Your task to perform on an android device: Open Chrome and go to settings Image 0: 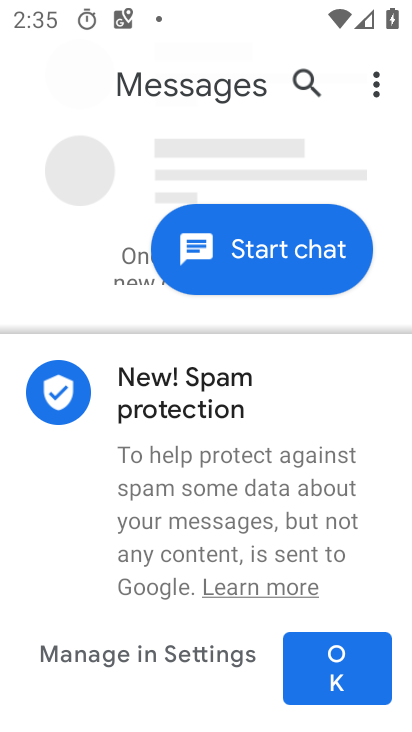
Step 0: press home button
Your task to perform on an android device: Open Chrome and go to settings Image 1: 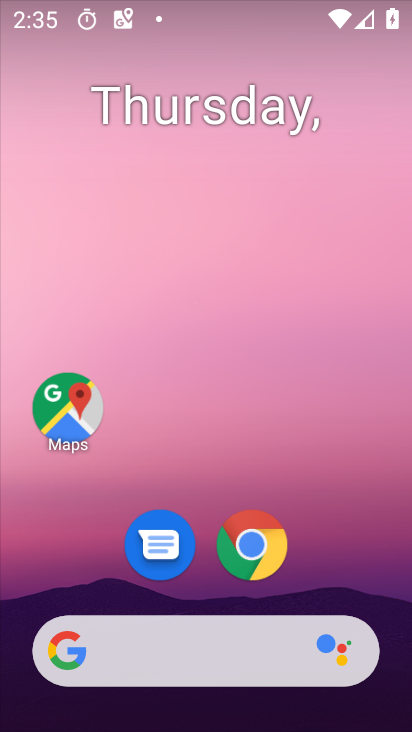
Step 1: click (254, 536)
Your task to perform on an android device: Open Chrome and go to settings Image 2: 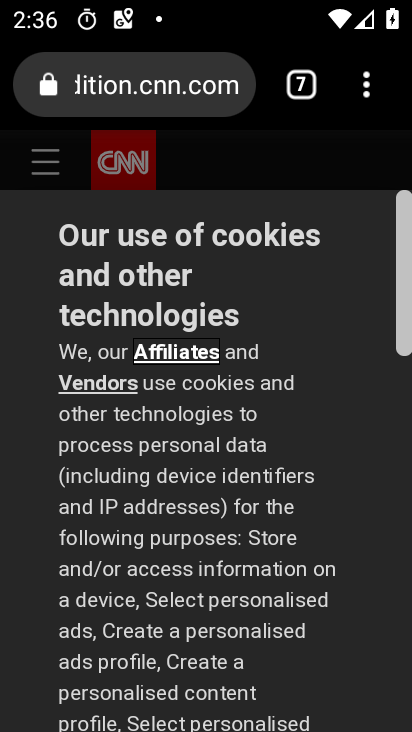
Step 2: click (369, 93)
Your task to perform on an android device: Open Chrome and go to settings Image 3: 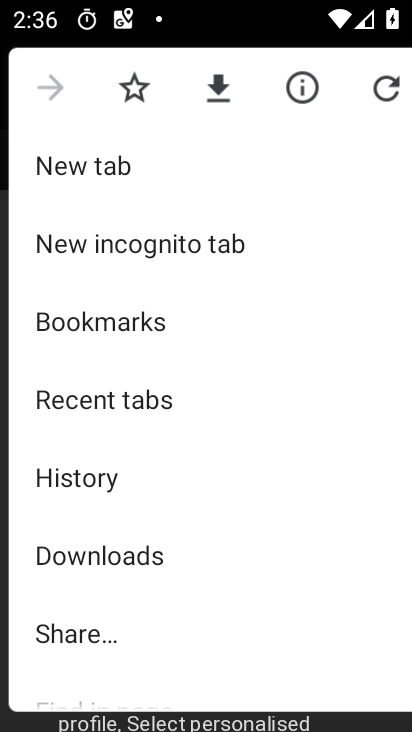
Step 3: drag from (119, 615) to (106, 262)
Your task to perform on an android device: Open Chrome and go to settings Image 4: 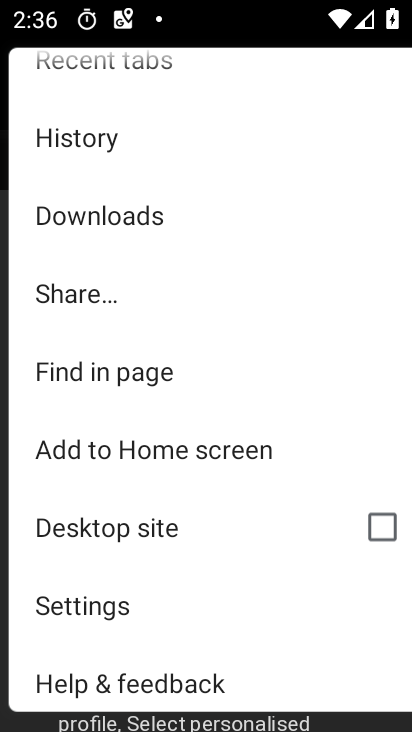
Step 4: click (87, 597)
Your task to perform on an android device: Open Chrome and go to settings Image 5: 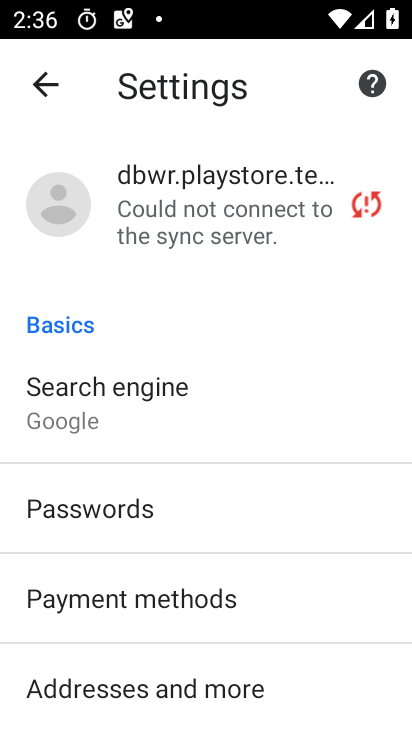
Step 5: task complete